Your task to perform on an android device: Toggle the flashlight Image 0: 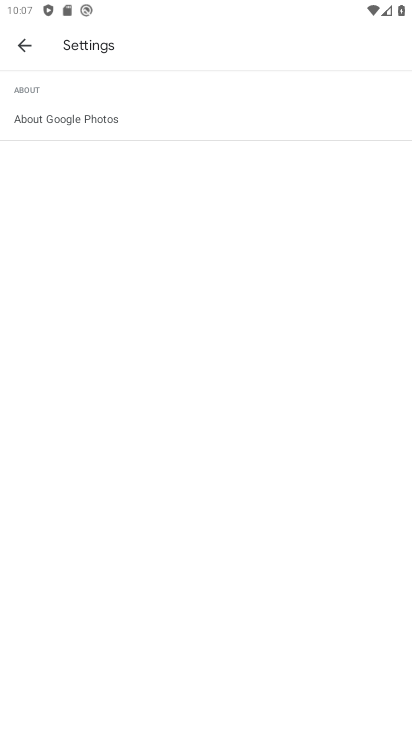
Step 0: press home button
Your task to perform on an android device: Toggle the flashlight Image 1: 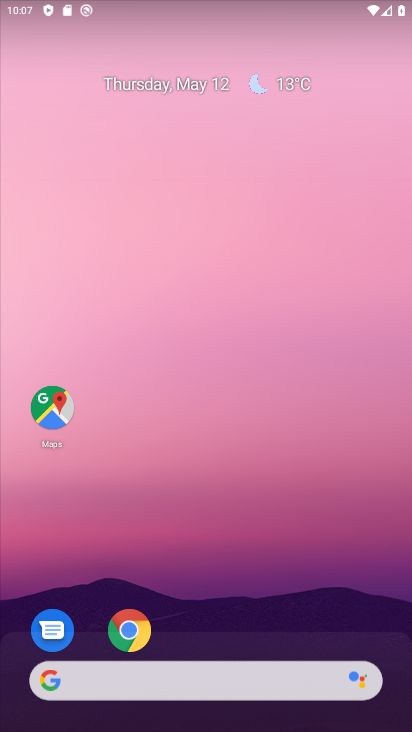
Step 1: drag from (258, 638) to (292, 42)
Your task to perform on an android device: Toggle the flashlight Image 2: 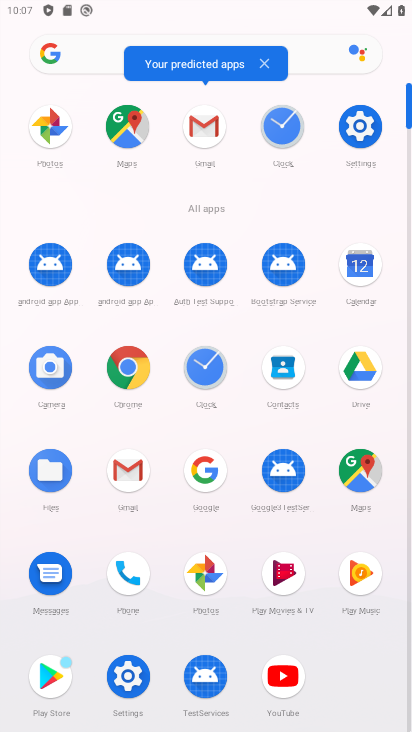
Step 2: click (354, 138)
Your task to perform on an android device: Toggle the flashlight Image 3: 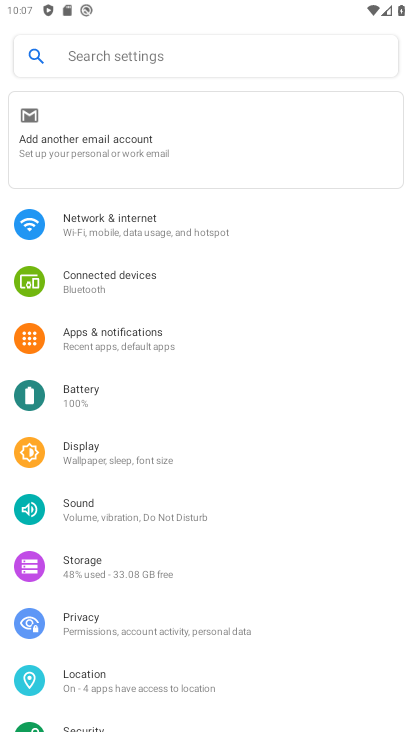
Step 3: task complete